Your task to perform on an android device: turn on data saver in the chrome app Image 0: 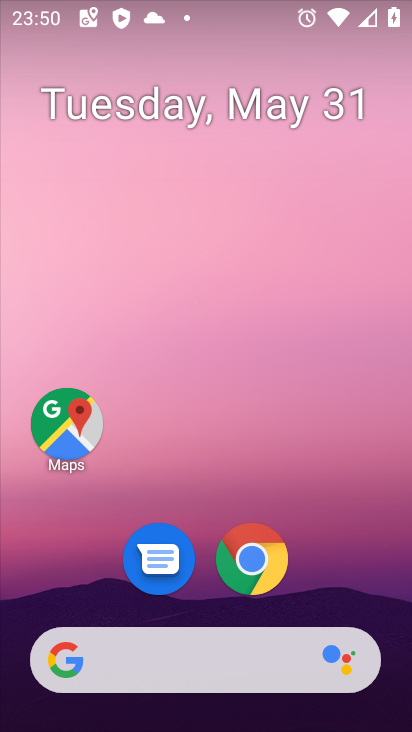
Step 0: click (256, 559)
Your task to perform on an android device: turn on data saver in the chrome app Image 1: 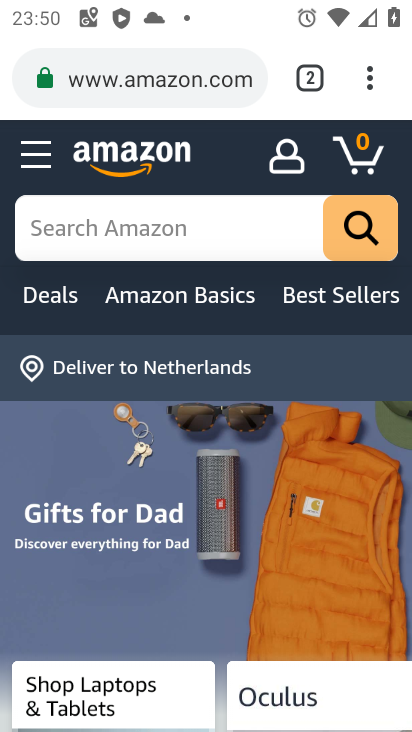
Step 1: click (373, 76)
Your task to perform on an android device: turn on data saver in the chrome app Image 2: 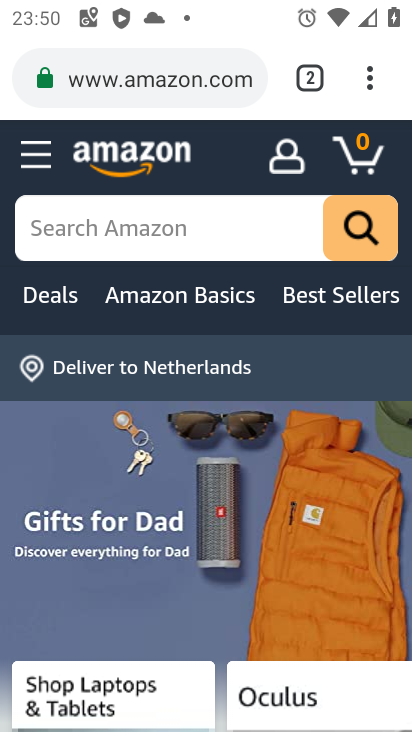
Step 2: click (353, 79)
Your task to perform on an android device: turn on data saver in the chrome app Image 3: 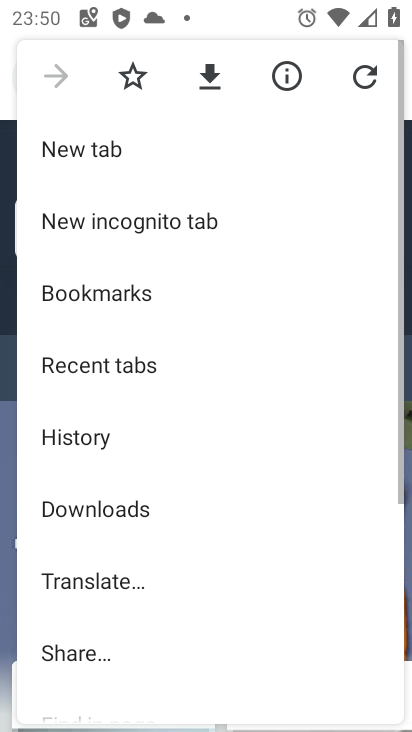
Step 3: drag from (225, 487) to (219, 33)
Your task to perform on an android device: turn on data saver in the chrome app Image 4: 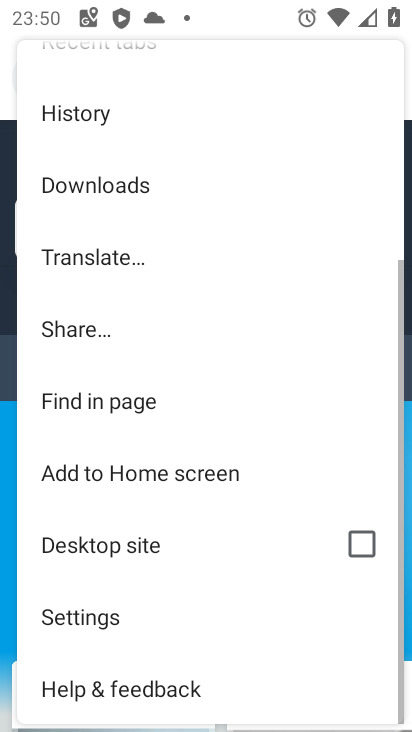
Step 4: click (120, 596)
Your task to perform on an android device: turn on data saver in the chrome app Image 5: 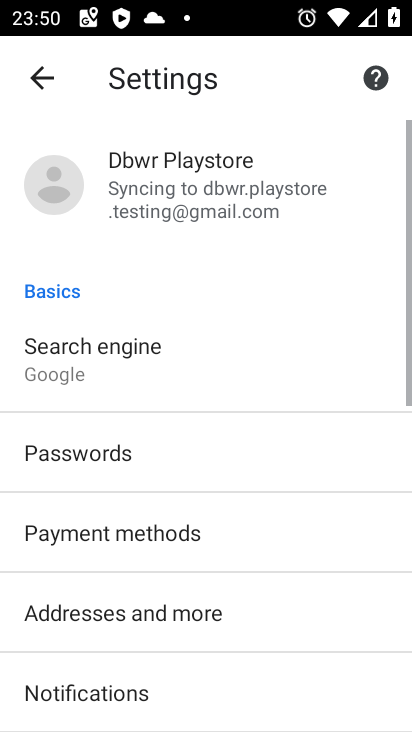
Step 5: drag from (305, 565) to (296, 118)
Your task to perform on an android device: turn on data saver in the chrome app Image 6: 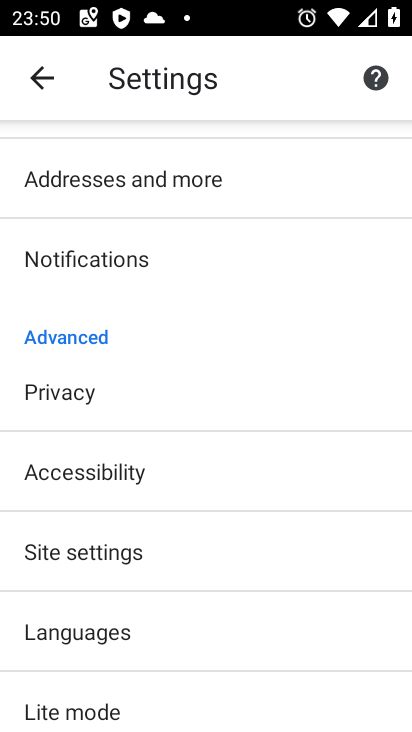
Step 6: drag from (207, 670) to (206, 460)
Your task to perform on an android device: turn on data saver in the chrome app Image 7: 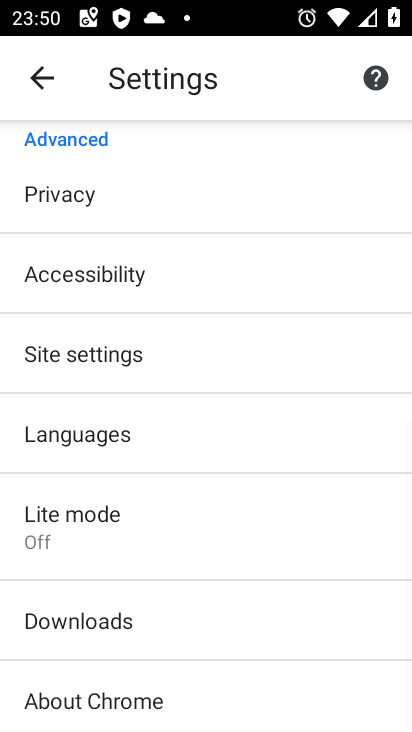
Step 7: click (112, 521)
Your task to perform on an android device: turn on data saver in the chrome app Image 8: 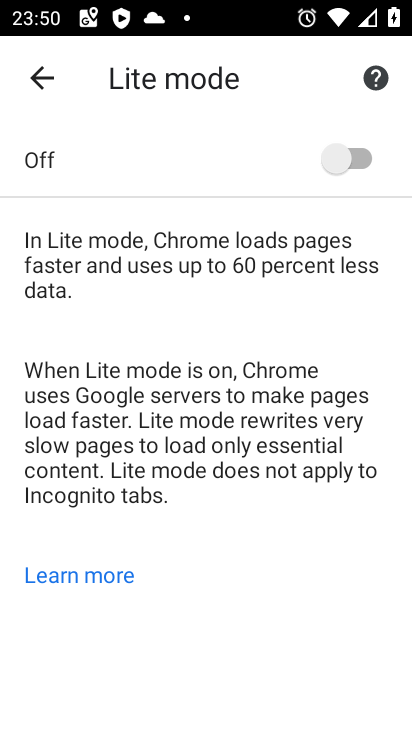
Step 8: click (355, 159)
Your task to perform on an android device: turn on data saver in the chrome app Image 9: 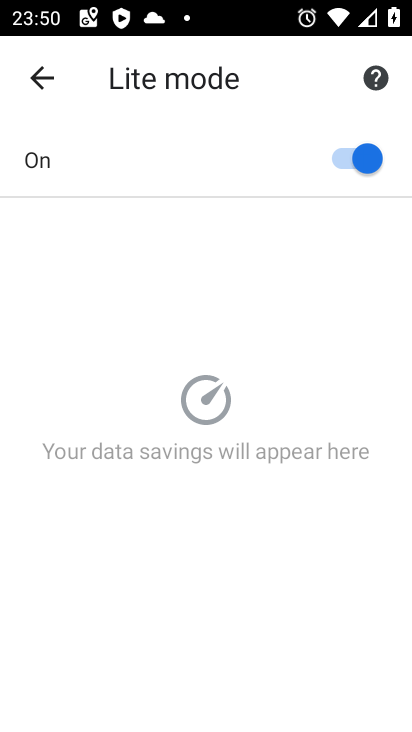
Step 9: task complete